Your task to perform on an android device: Add "jbl flip 4" to the cart on amazon.com Image 0: 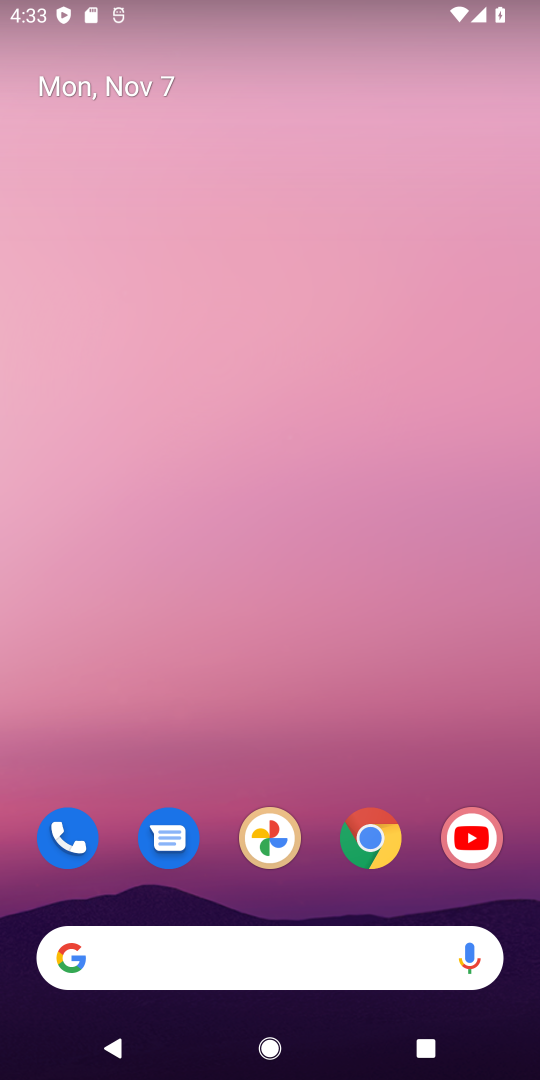
Step 0: click (370, 824)
Your task to perform on an android device: Add "jbl flip 4" to the cart on amazon.com Image 1: 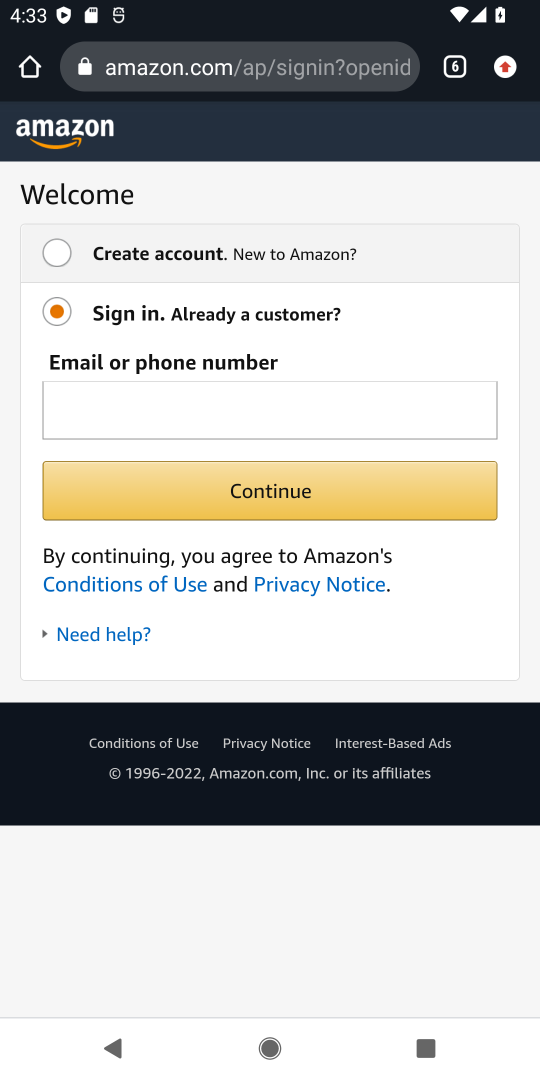
Step 1: press back button
Your task to perform on an android device: Add "jbl flip 4" to the cart on amazon.com Image 2: 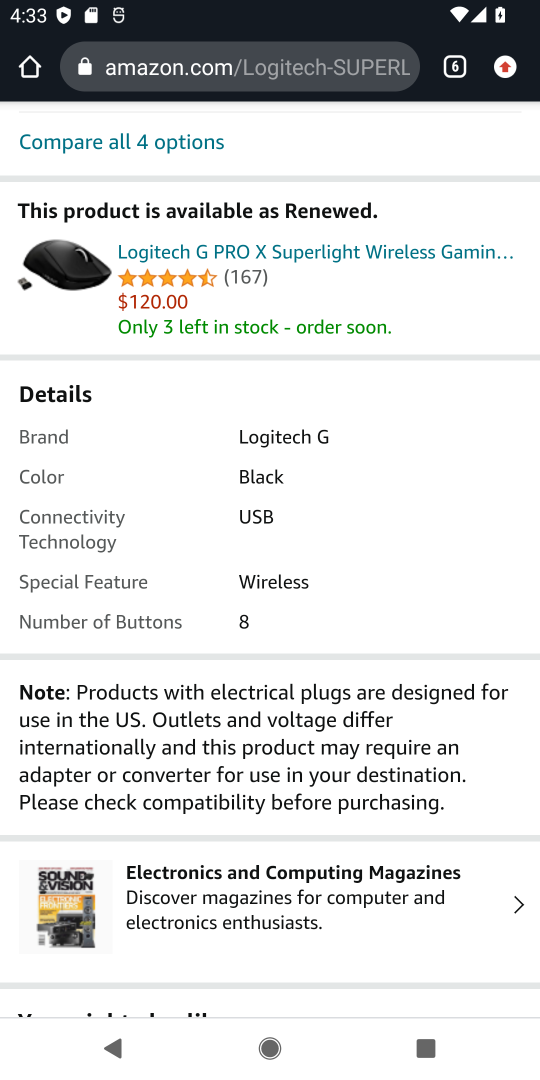
Step 2: drag from (290, 478) to (252, 919)
Your task to perform on an android device: Add "jbl flip 4" to the cart on amazon.com Image 3: 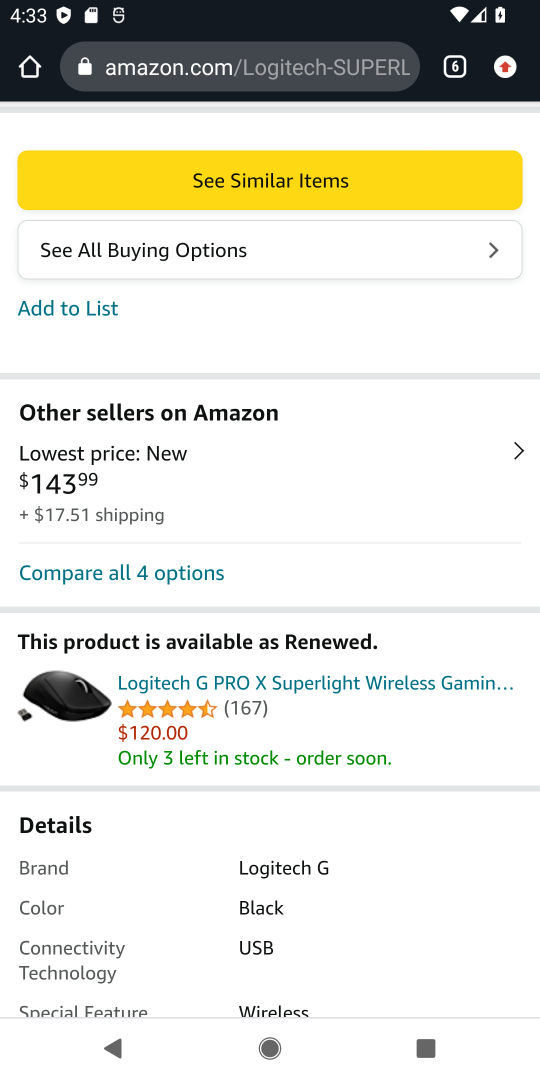
Step 3: drag from (372, 215) to (369, 930)
Your task to perform on an android device: Add "jbl flip 4" to the cart on amazon.com Image 4: 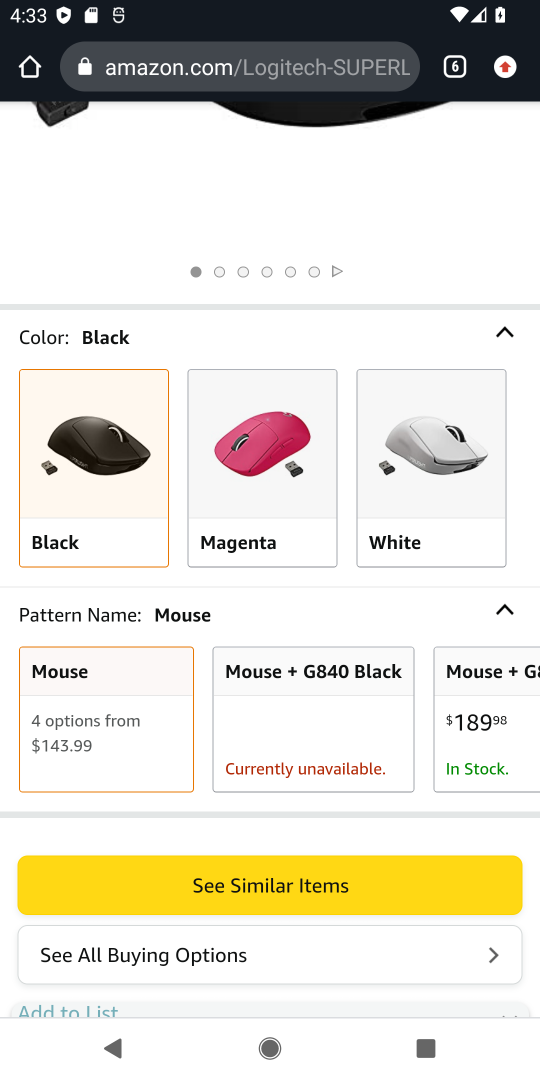
Step 4: drag from (302, 164) to (263, 683)
Your task to perform on an android device: Add "jbl flip 4" to the cart on amazon.com Image 5: 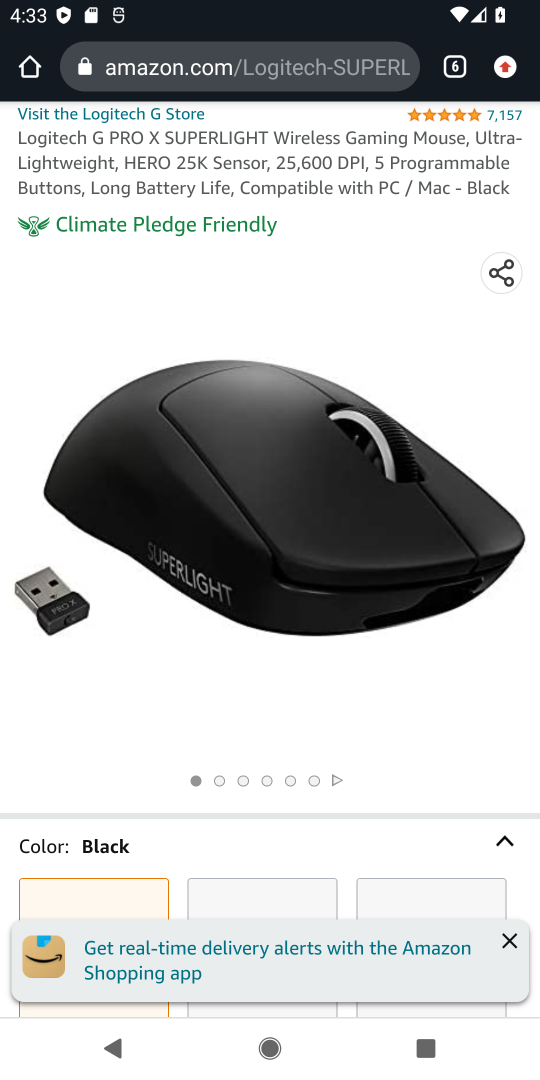
Step 5: drag from (282, 170) to (255, 824)
Your task to perform on an android device: Add "jbl flip 4" to the cart on amazon.com Image 6: 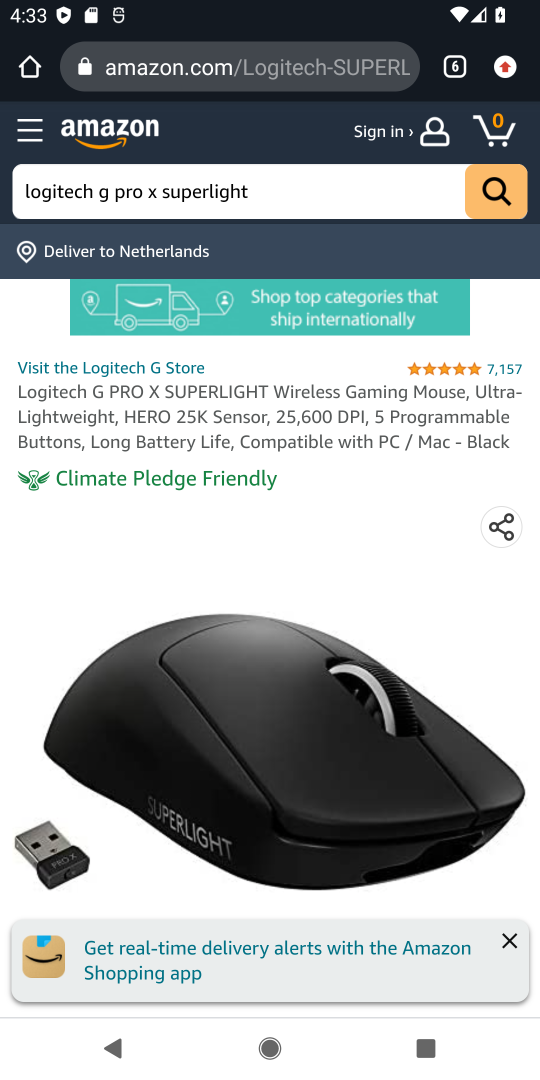
Step 6: click (318, 187)
Your task to perform on an android device: Add "jbl flip 4" to the cart on amazon.com Image 7: 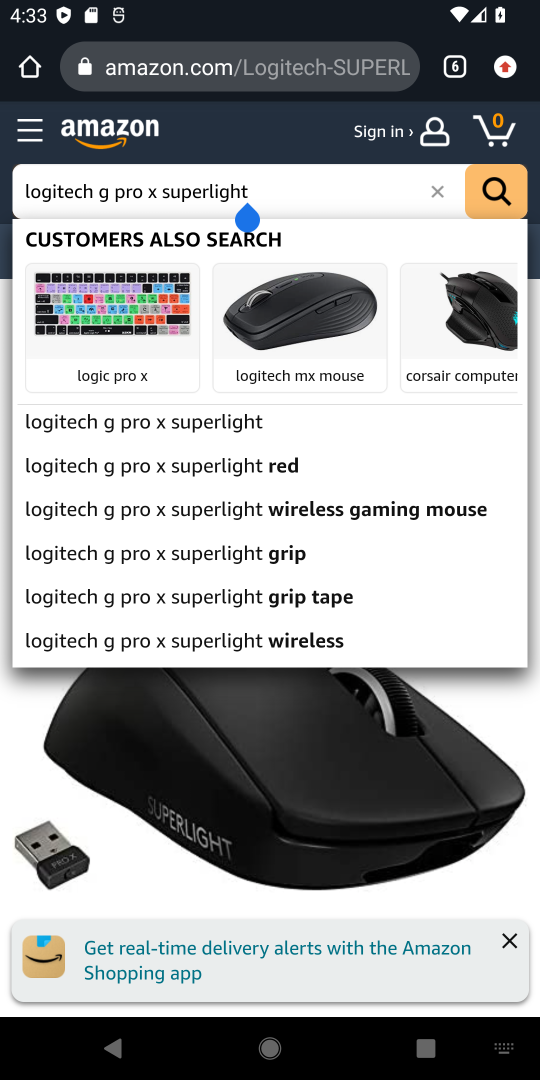
Step 7: click (438, 192)
Your task to perform on an android device: Add "jbl flip 4" to the cart on amazon.com Image 8: 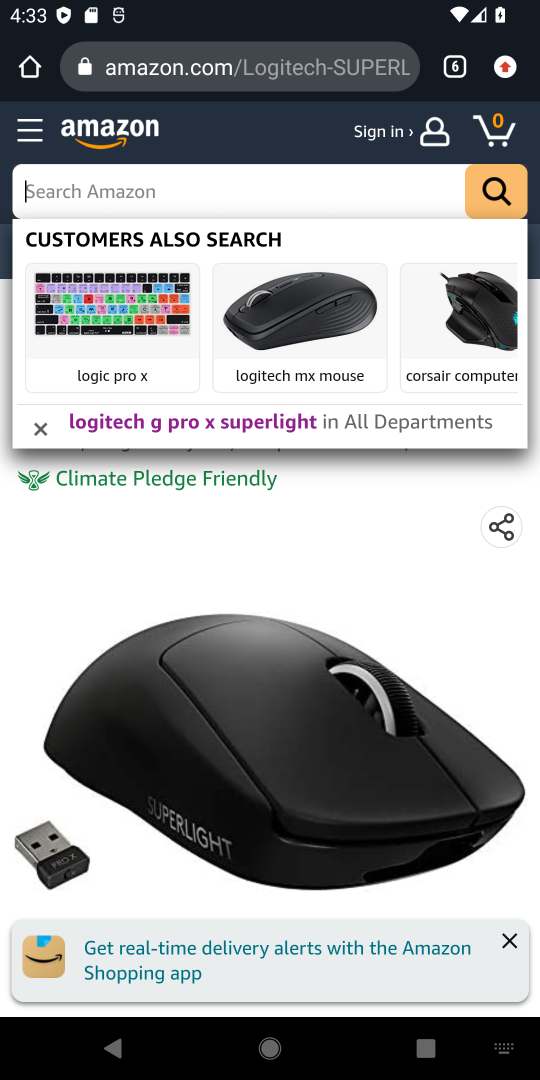
Step 8: type "jbl flip 4"
Your task to perform on an android device: Add "jbl flip 4" to the cart on amazon.com Image 9: 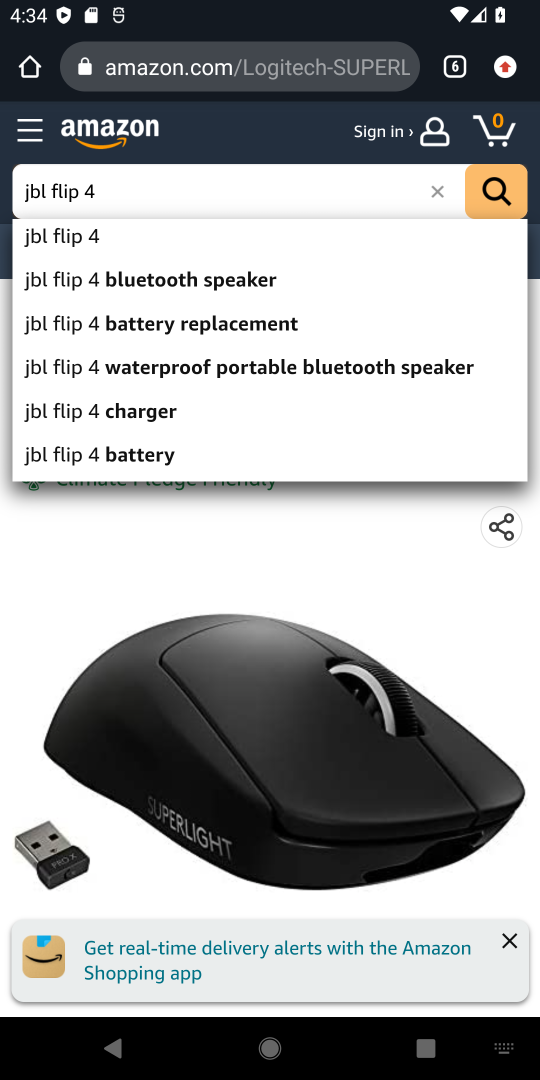
Step 9: click (82, 238)
Your task to perform on an android device: Add "jbl flip 4" to the cart on amazon.com Image 10: 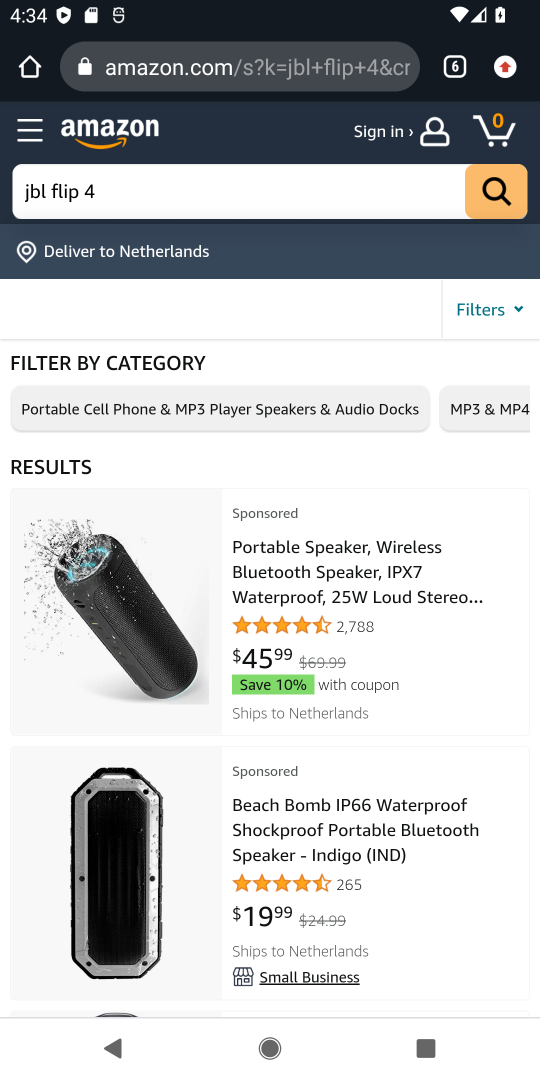
Step 10: click (323, 598)
Your task to perform on an android device: Add "jbl flip 4" to the cart on amazon.com Image 11: 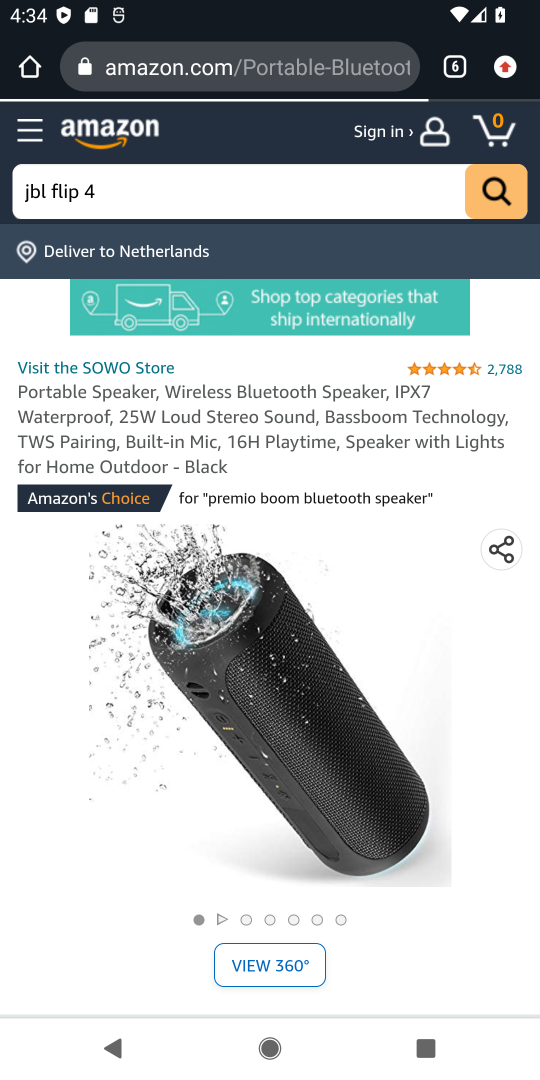
Step 11: drag from (402, 936) to (447, 393)
Your task to perform on an android device: Add "jbl flip 4" to the cart on amazon.com Image 12: 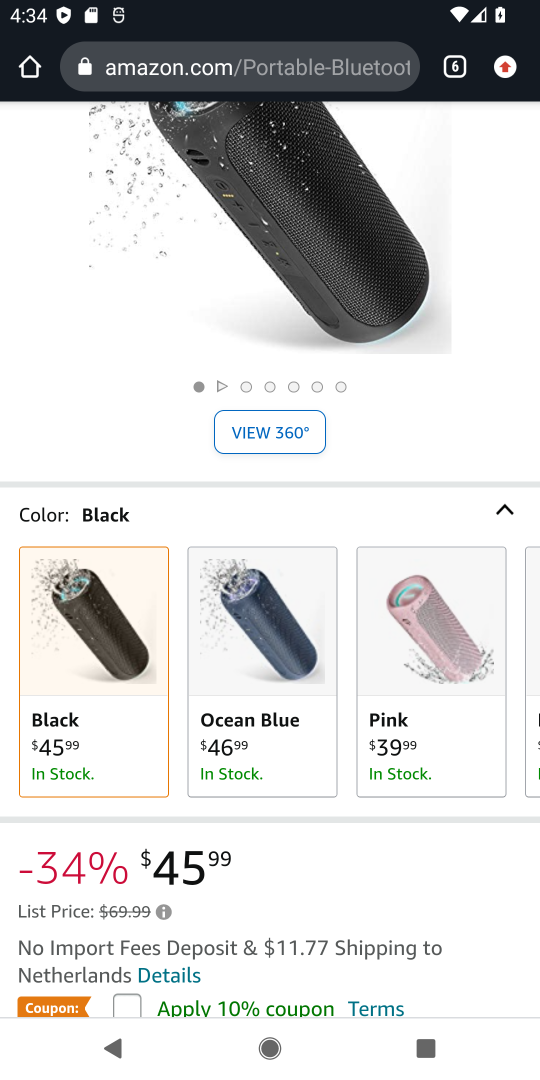
Step 12: drag from (273, 828) to (342, 179)
Your task to perform on an android device: Add "jbl flip 4" to the cart on amazon.com Image 13: 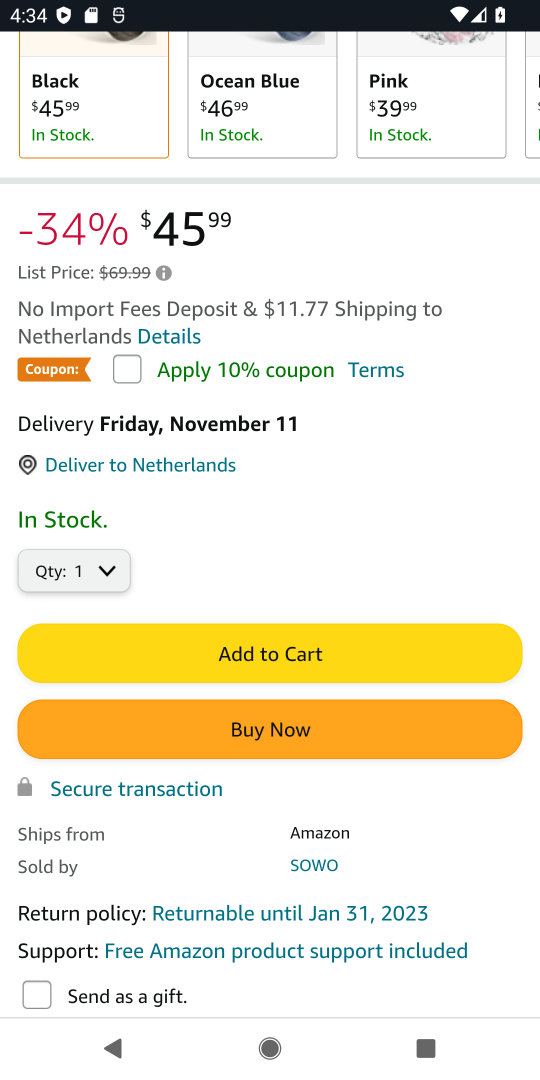
Step 13: click (190, 650)
Your task to perform on an android device: Add "jbl flip 4" to the cart on amazon.com Image 14: 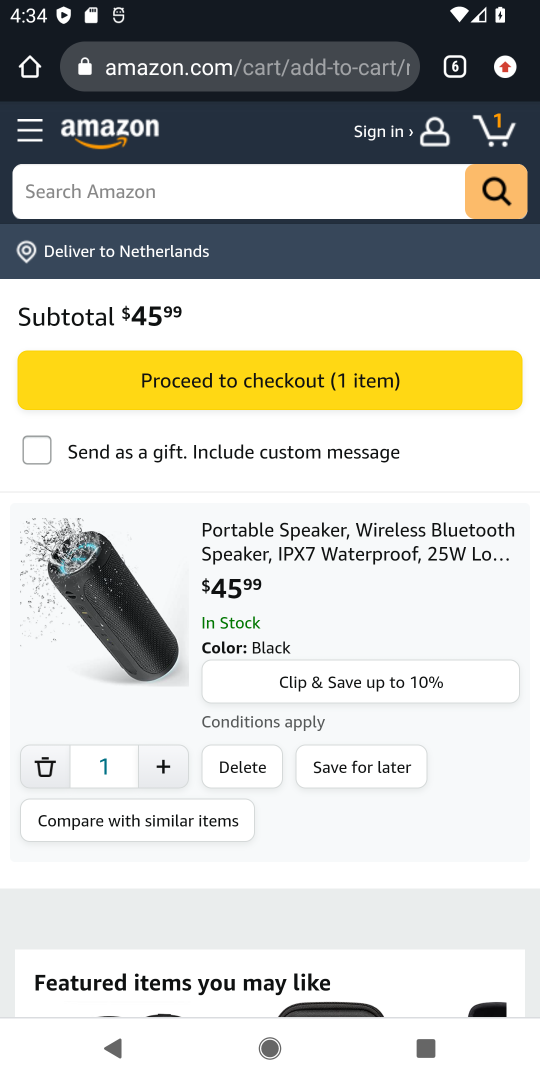
Step 14: task complete